Your task to perform on an android device: turn off location history Image 0: 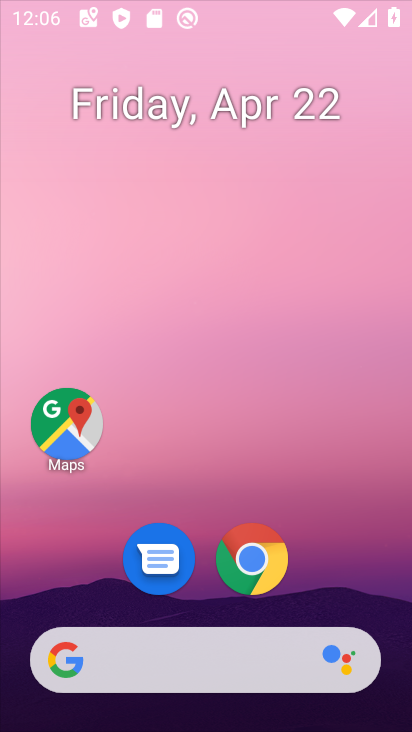
Step 0: drag from (339, 605) to (293, 257)
Your task to perform on an android device: turn off location history Image 1: 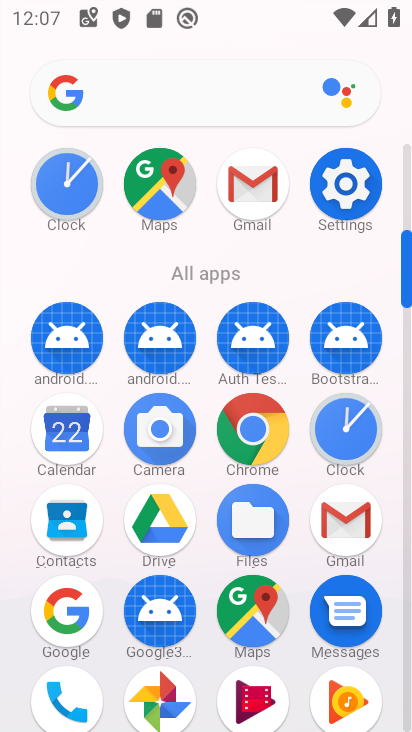
Step 1: click (340, 211)
Your task to perform on an android device: turn off location history Image 2: 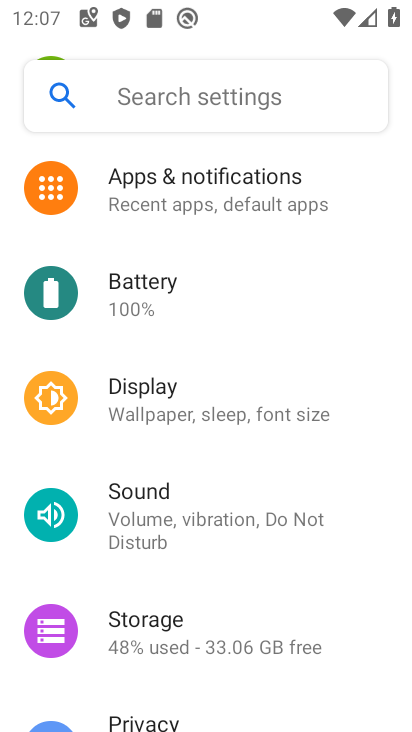
Step 2: drag from (237, 559) to (241, 323)
Your task to perform on an android device: turn off location history Image 3: 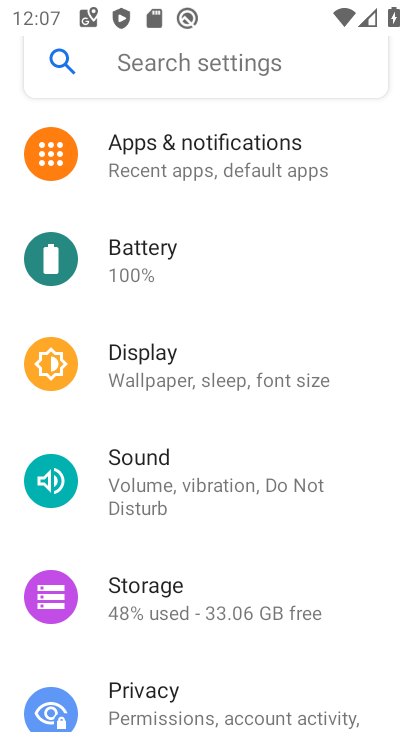
Step 3: drag from (194, 587) to (196, 359)
Your task to perform on an android device: turn off location history Image 4: 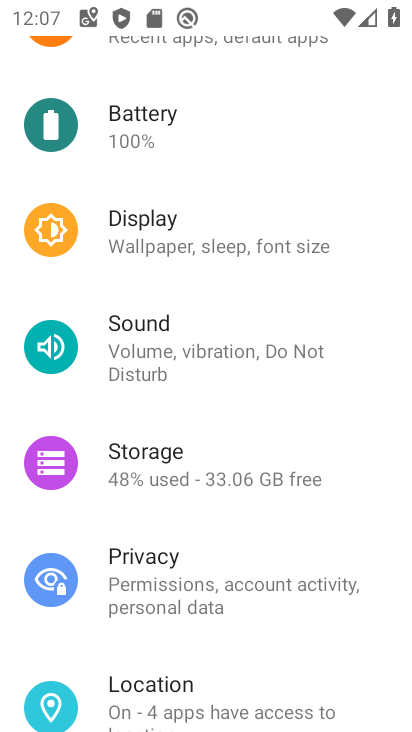
Step 4: click (158, 711)
Your task to perform on an android device: turn off location history Image 5: 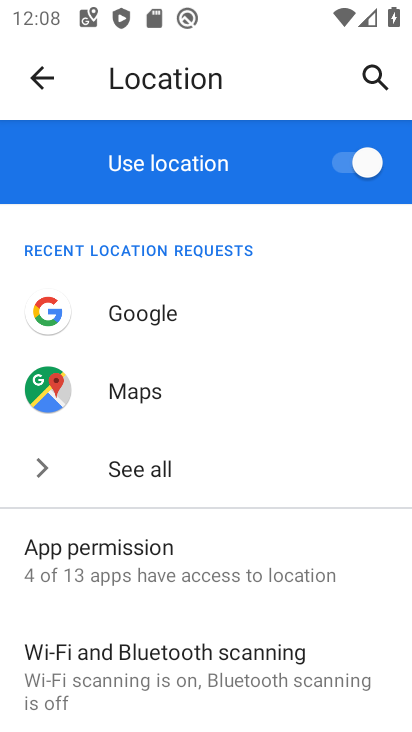
Step 5: drag from (205, 625) to (200, 450)
Your task to perform on an android device: turn off location history Image 6: 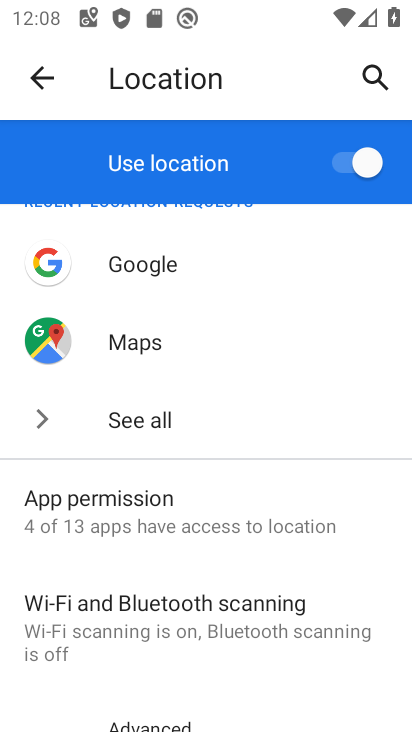
Step 6: drag from (202, 639) to (206, 404)
Your task to perform on an android device: turn off location history Image 7: 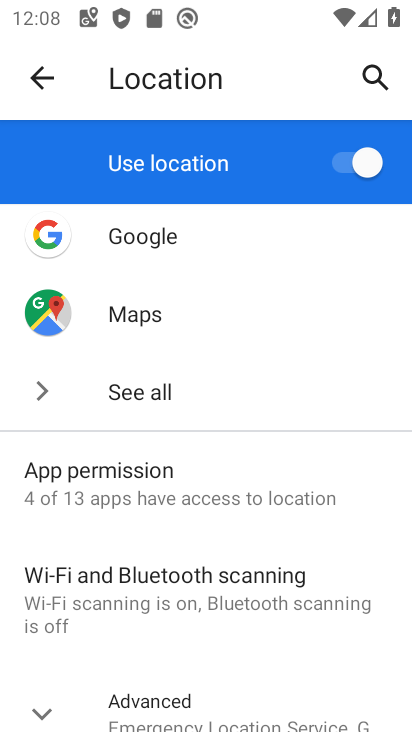
Step 7: drag from (174, 672) to (211, 494)
Your task to perform on an android device: turn off location history Image 8: 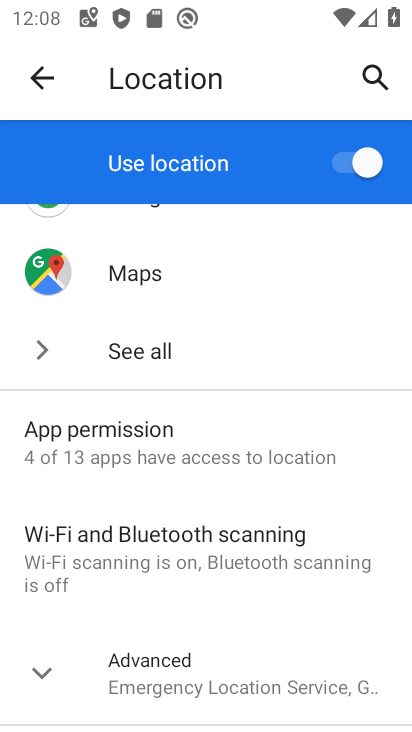
Step 8: click (132, 683)
Your task to perform on an android device: turn off location history Image 9: 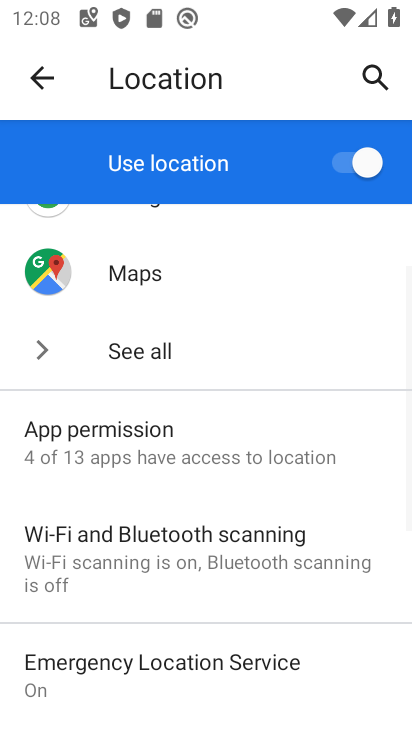
Step 9: drag from (193, 676) to (263, 458)
Your task to perform on an android device: turn off location history Image 10: 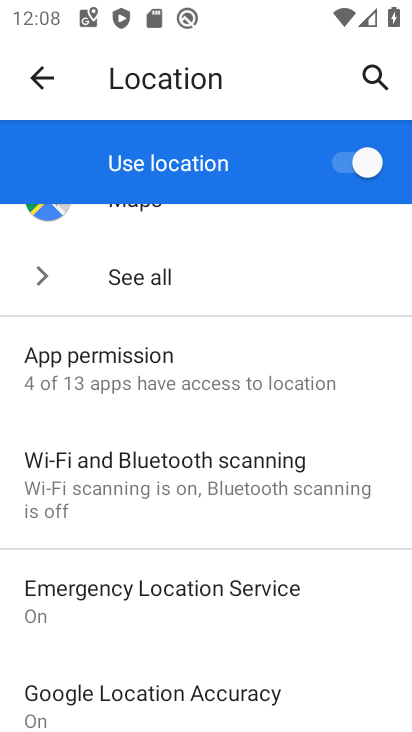
Step 10: drag from (234, 599) to (275, 416)
Your task to perform on an android device: turn off location history Image 11: 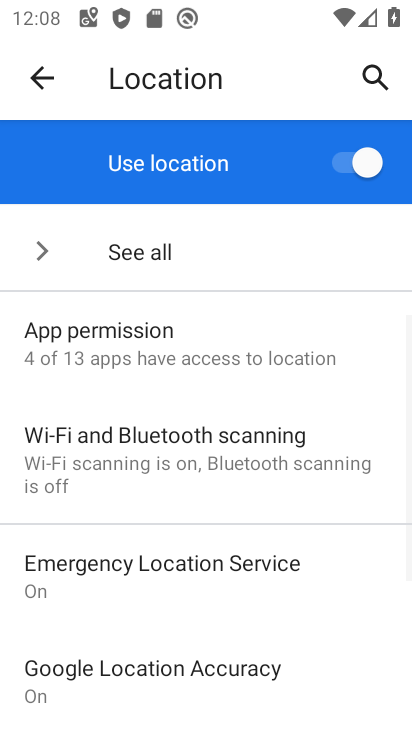
Step 11: drag from (251, 677) to (294, 427)
Your task to perform on an android device: turn off location history Image 12: 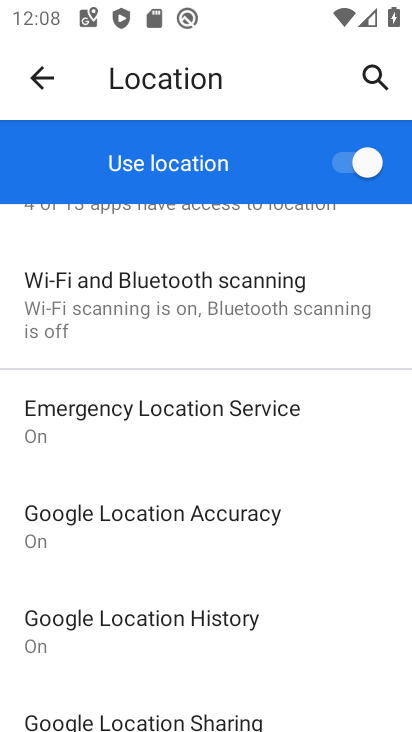
Step 12: click (223, 627)
Your task to perform on an android device: turn off location history Image 13: 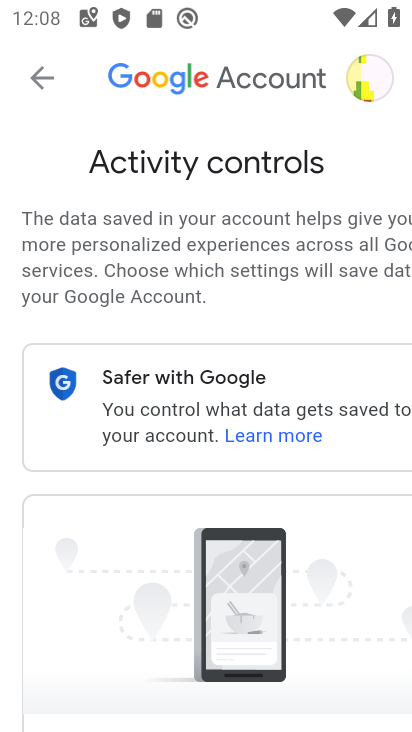
Step 13: task complete